Your task to perform on an android device: turn on priority inbox in the gmail app Image 0: 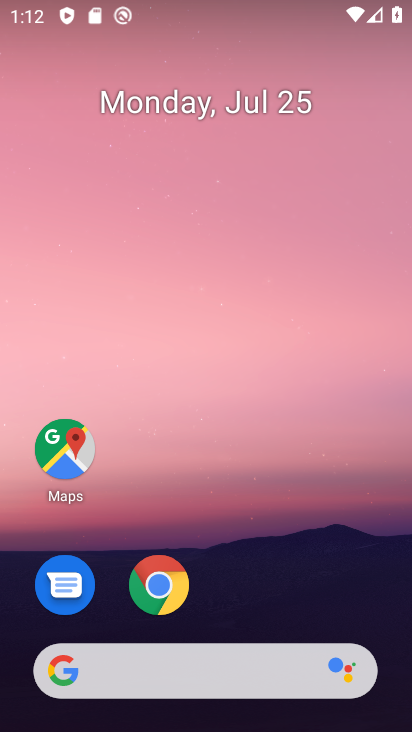
Step 0: drag from (226, 696) to (230, 236)
Your task to perform on an android device: turn on priority inbox in the gmail app Image 1: 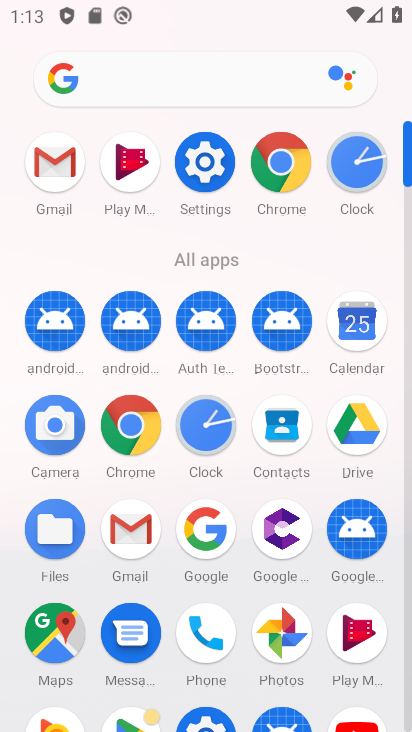
Step 1: click (121, 529)
Your task to perform on an android device: turn on priority inbox in the gmail app Image 2: 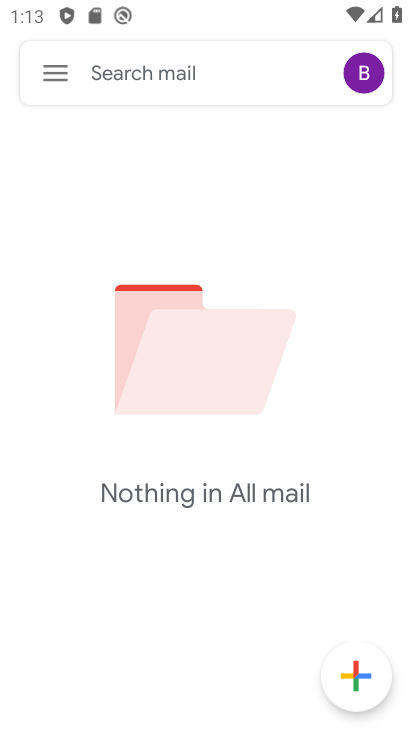
Step 2: click (63, 77)
Your task to perform on an android device: turn on priority inbox in the gmail app Image 3: 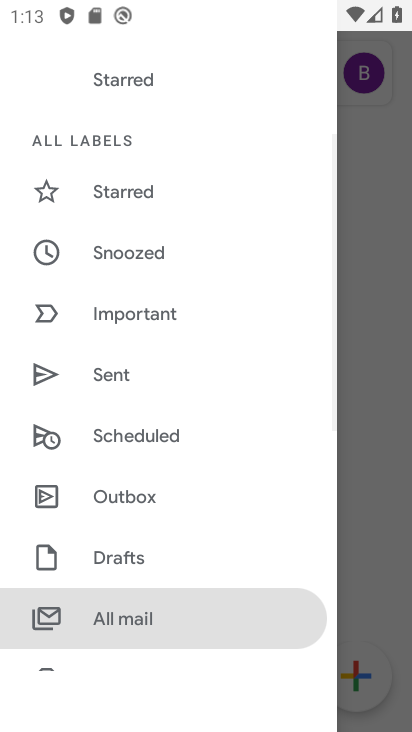
Step 3: drag from (150, 598) to (213, 118)
Your task to perform on an android device: turn on priority inbox in the gmail app Image 4: 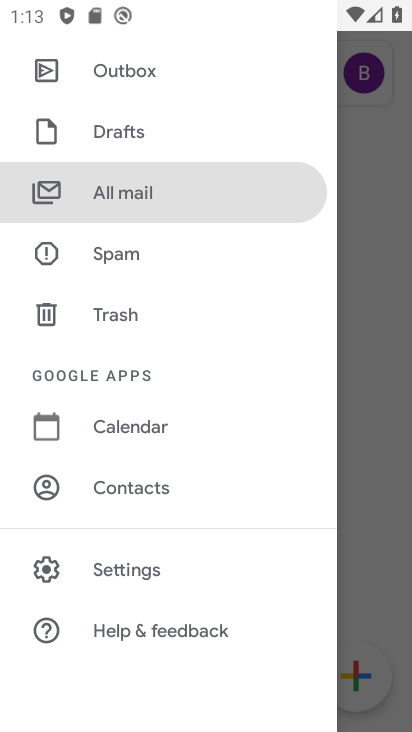
Step 4: click (122, 572)
Your task to perform on an android device: turn on priority inbox in the gmail app Image 5: 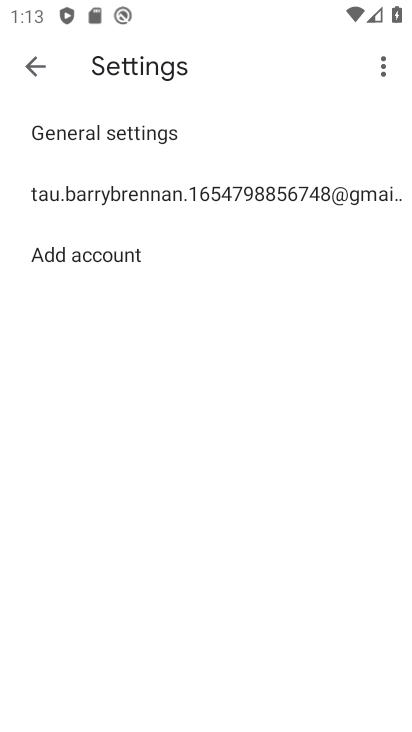
Step 5: click (136, 204)
Your task to perform on an android device: turn on priority inbox in the gmail app Image 6: 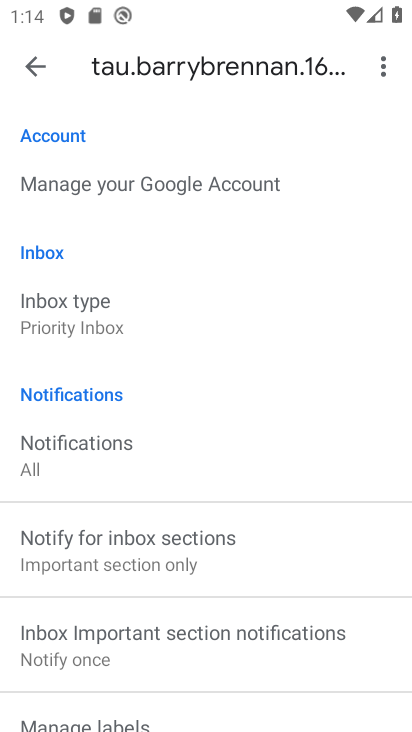
Step 6: click (81, 310)
Your task to perform on an android device: turn on priority inbox in the gmail app Image 7: 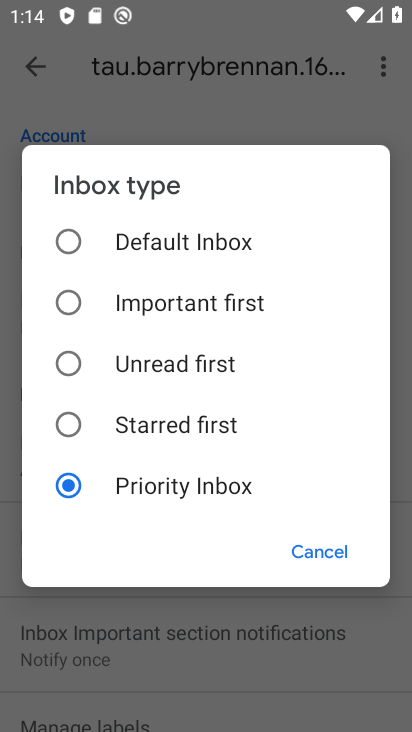
Step 7: click (129, 471)
Your task to perform on an android device: turn on priority inbox in the gmail app Image 8: 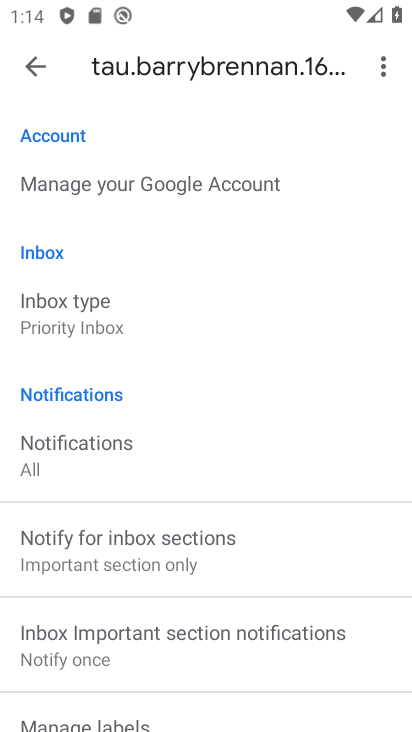
Step 8: task complete